Your task to perform on an android device: find photos in the google photos app Image 0: 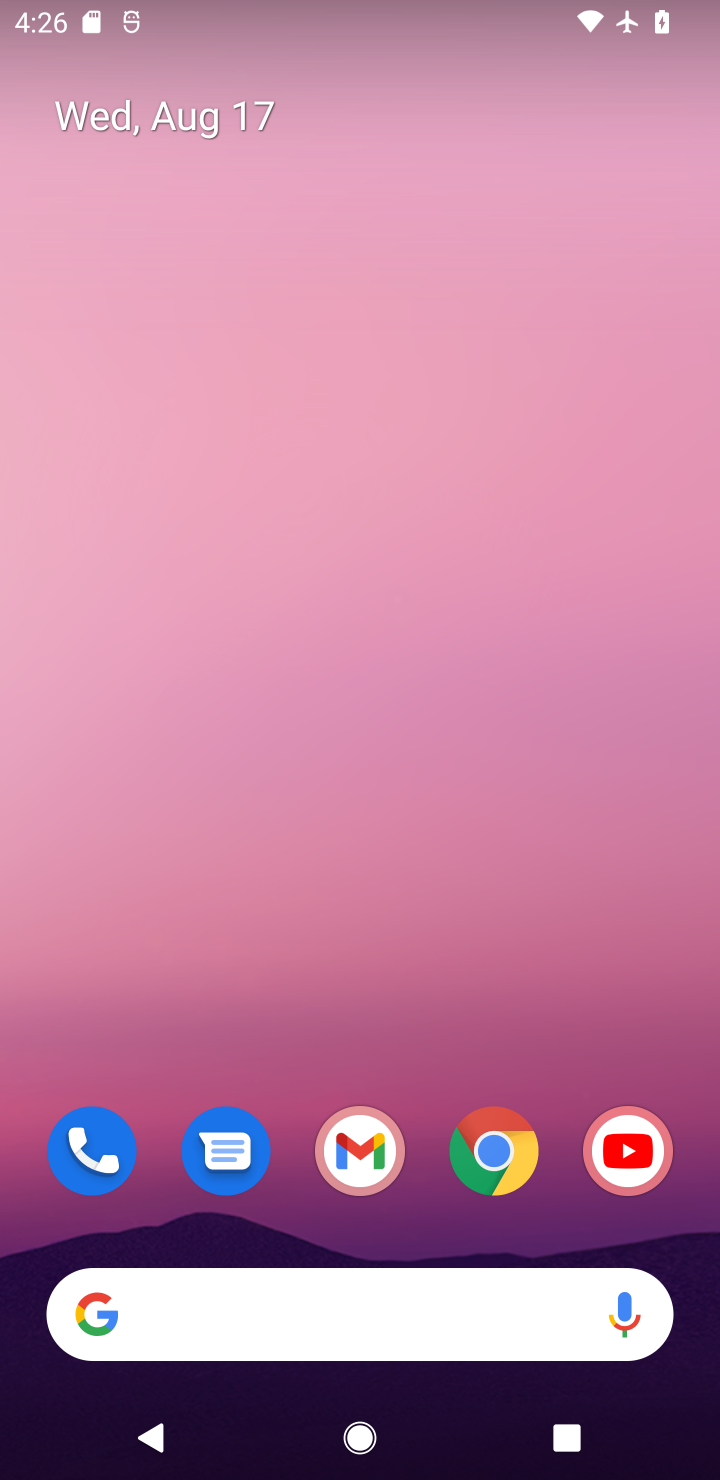
Step 0: drag from (253, 1235) to (338, 92)
Your task to perform on an android device: find photos in the google photos app Image 1: 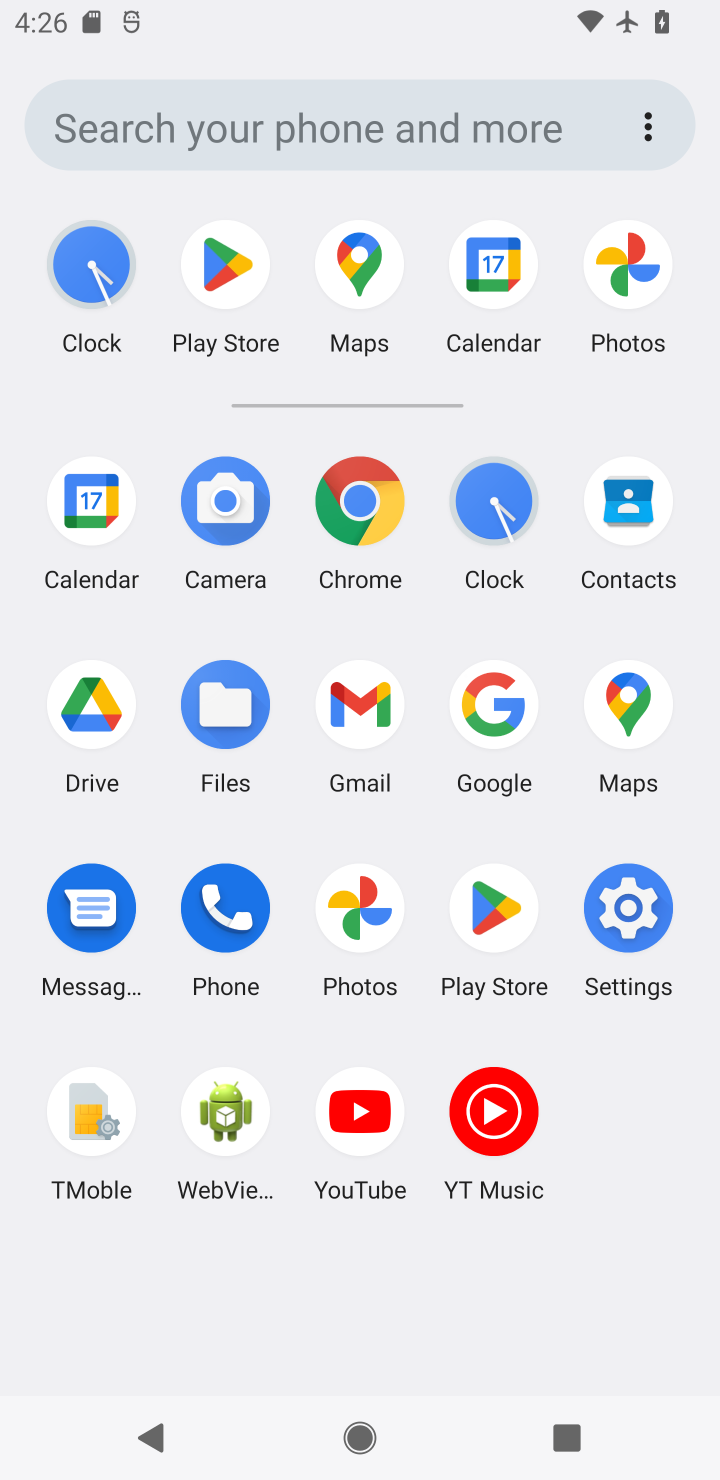
Step 1: click (383, 902)
Your task to perform on an android device: find photos in the google photos app Image 2: 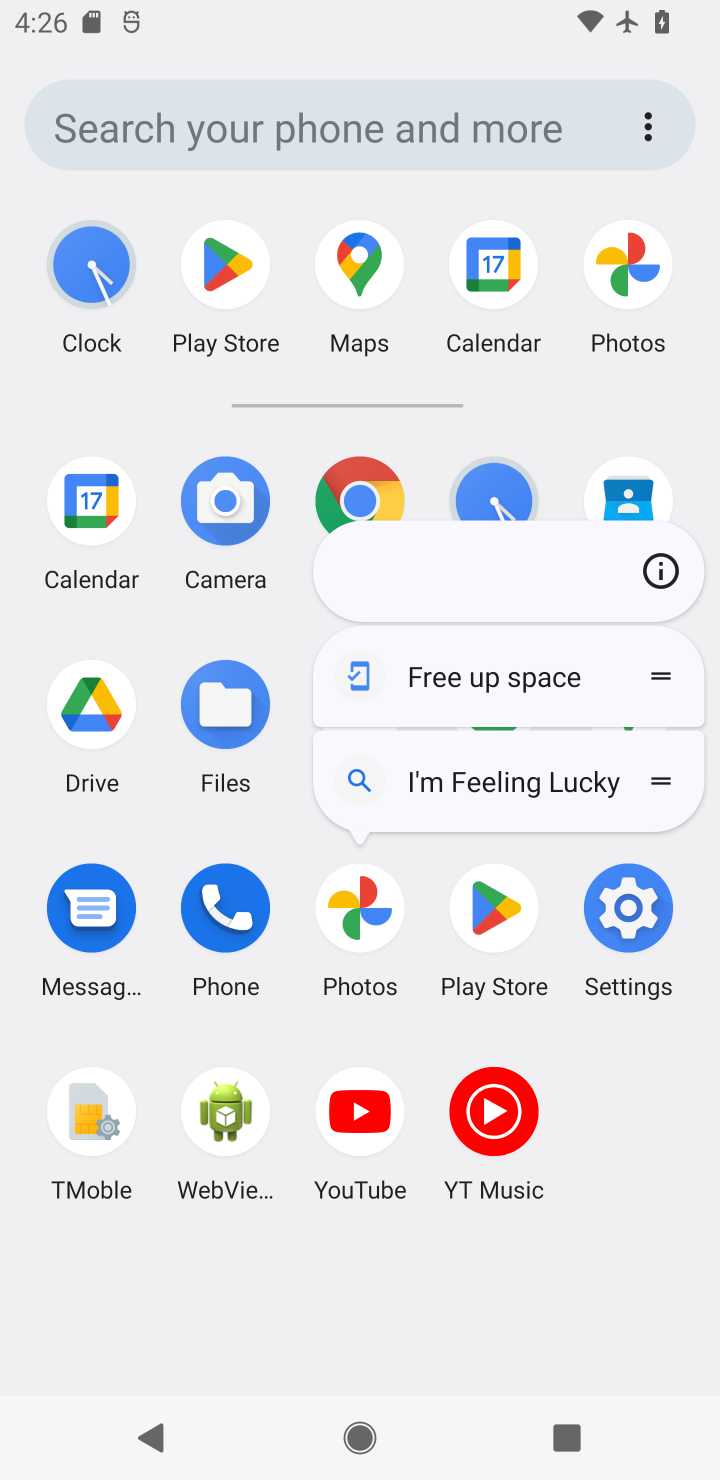
Step 2: click (361, 898)
Your task to perform on an android device: find photos in the google photos app Image 3: 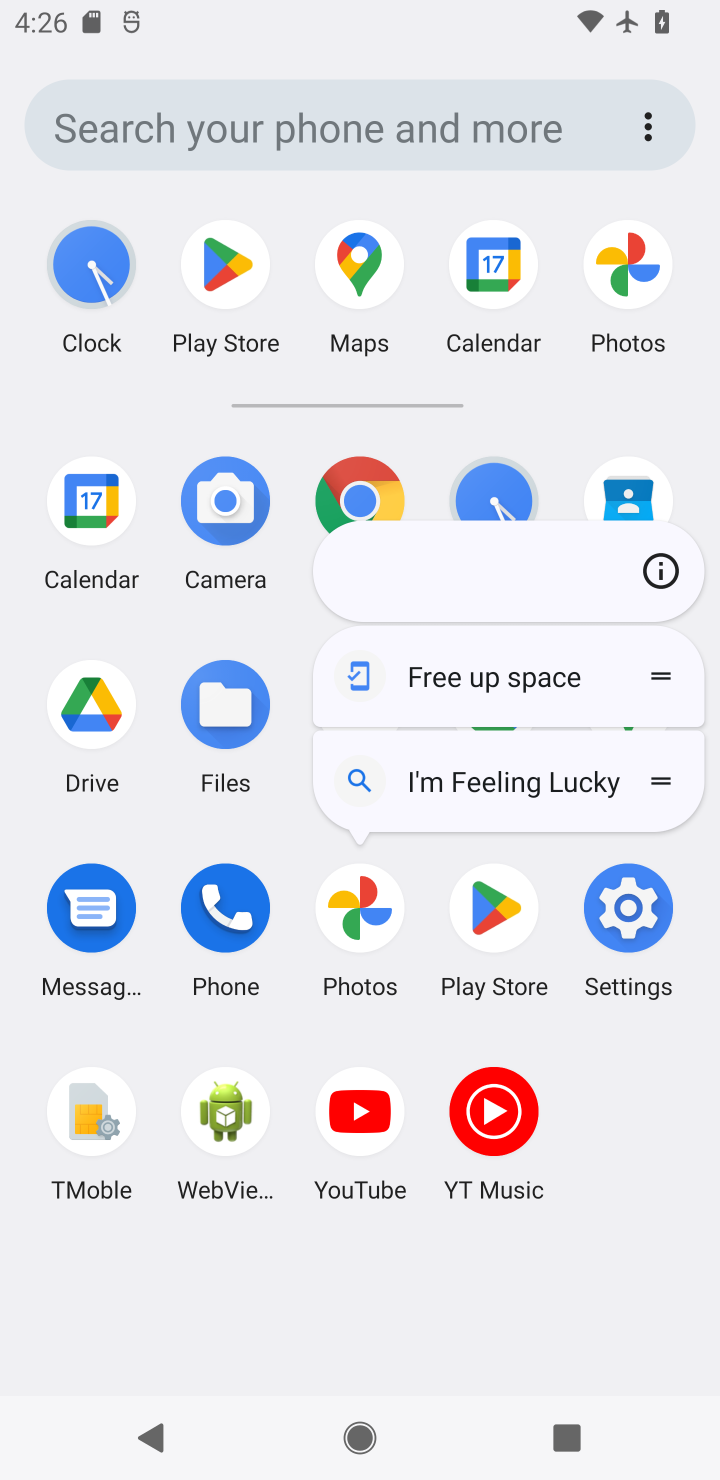
Step 3: click (361, 898)
Your task to perform on an android device: find photos in the google photos app Image 4: 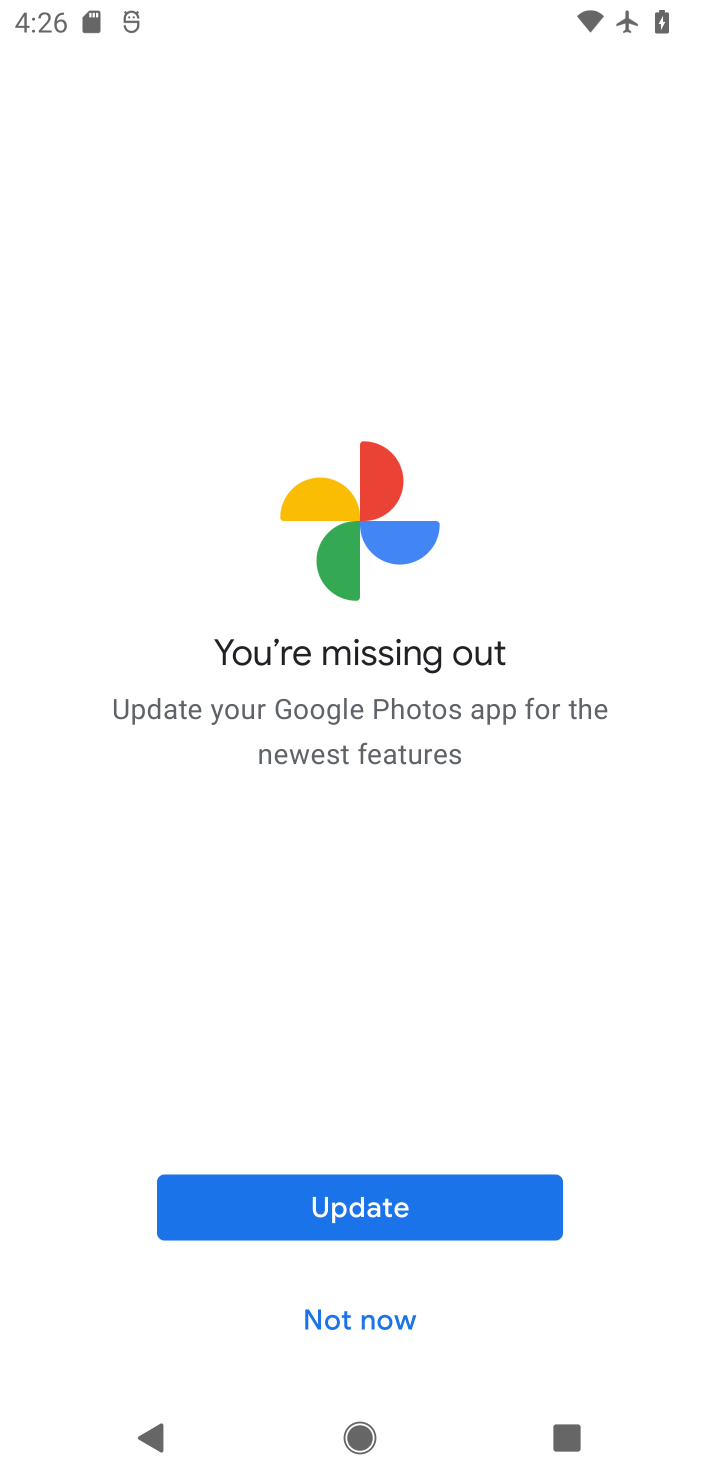
Step 4: click (333, 1302)
Your task to perform on an android device: find photos in the google photos app Image 5: 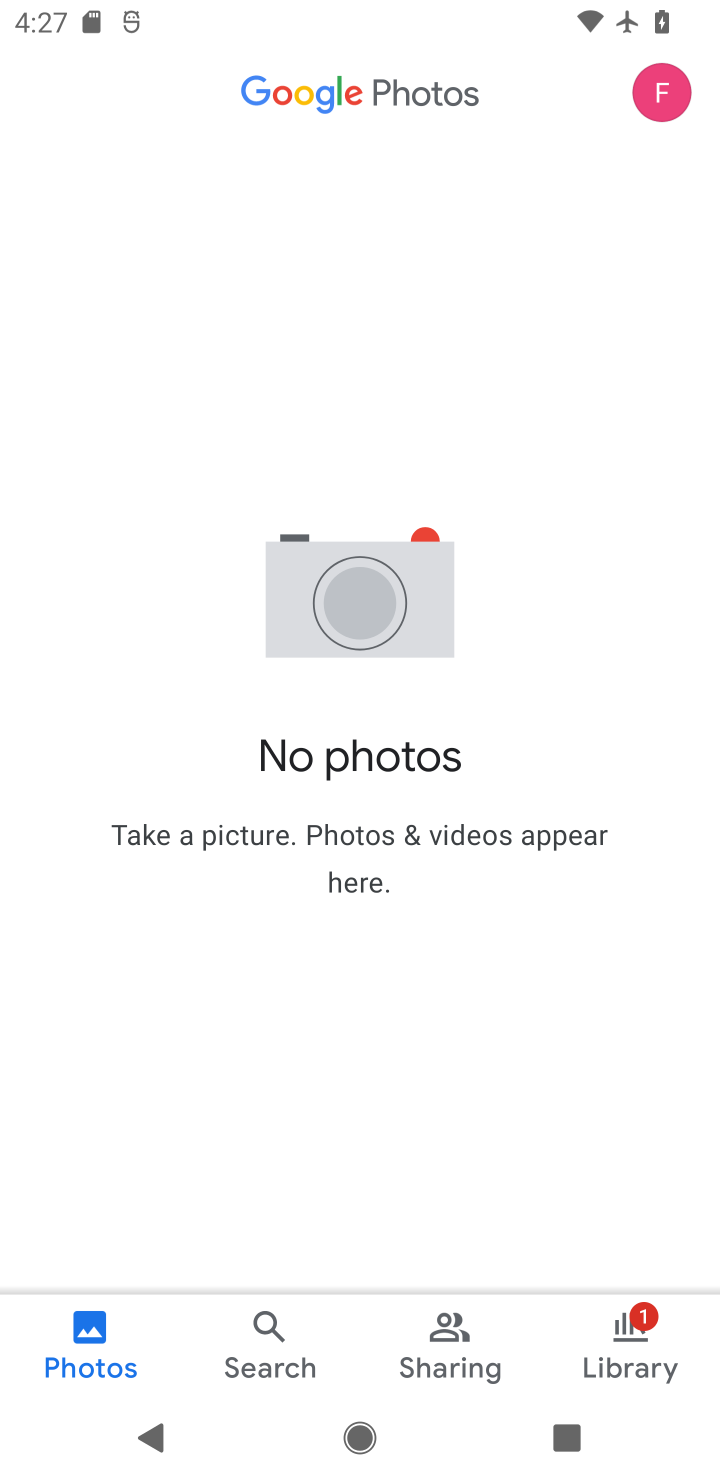
Step 5: task complete